Your task to perform on an android device: Open Google Chrome and open the bookmarks view Image 0: 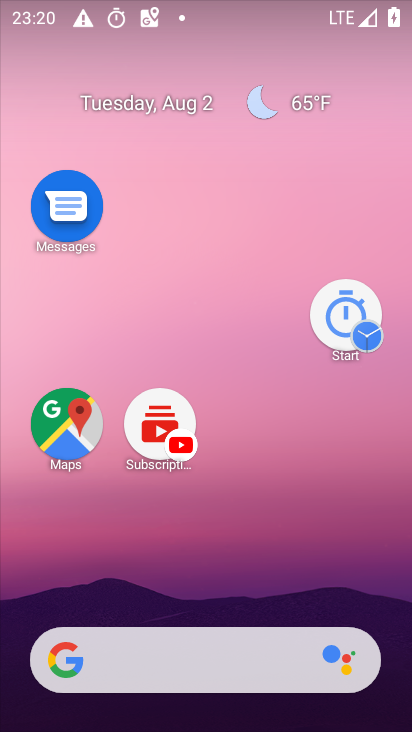
Step 0: click (211, 554)
Your task to perform on an android device: Open Google Chrome and open the bookmarks view Image 1: 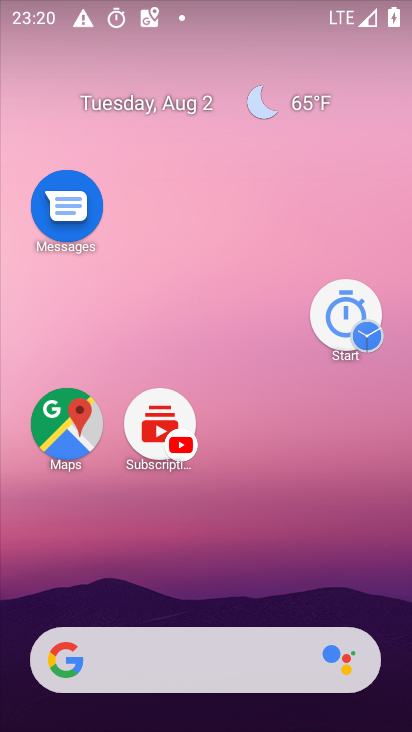
Step 1: drag from (248, 601) to (174, 216)
Your task to perform on an android device: Open Google Chrome and open the bookmarks view Image 2: 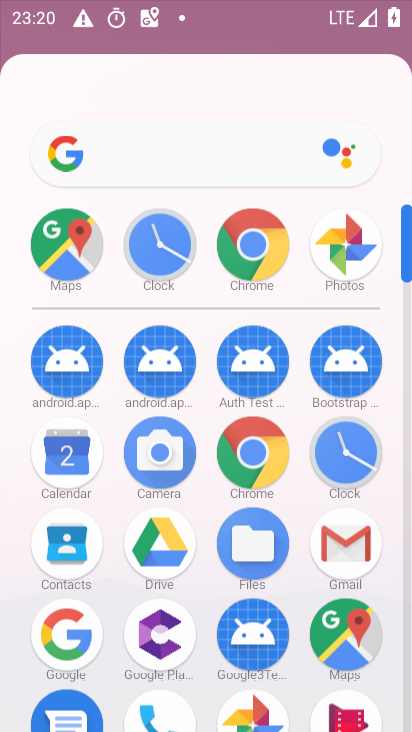
Step 2: drag from (247, 550) to (180, 213)
Your task to perform on an android device: Open Google Chrome and open the bookmarks view Image 3: 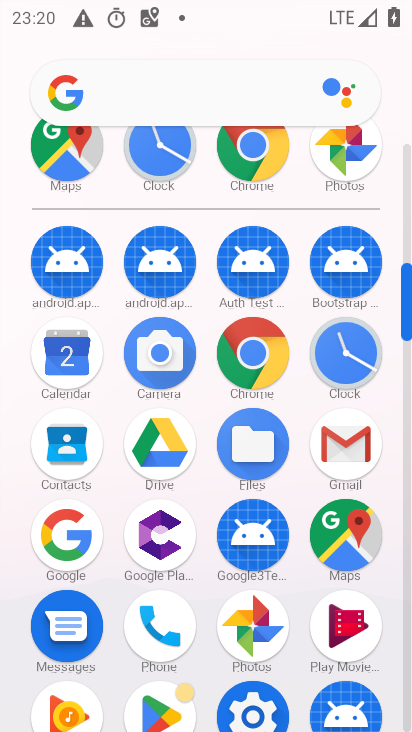
Step 3: click (252, 355)
Your task to perform on an android device: Open Google Chrome and open the bookmarks view Image 4: 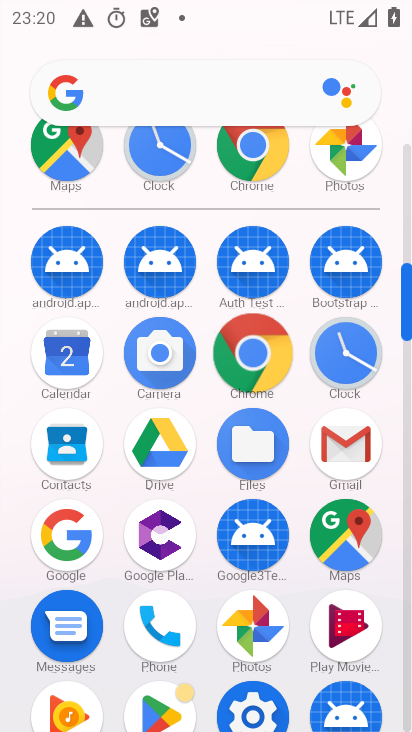
Step 4: click (253, 358)
Your task to perform on an android device: Open Google Chrome and open the bookmarks view Image 5: 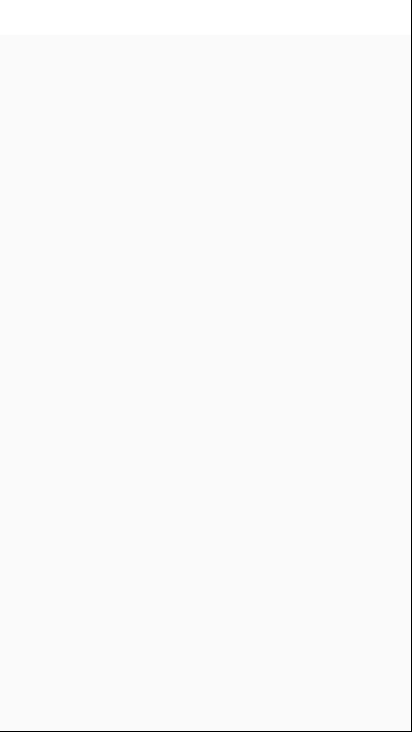
Step 5: click (251, 350)
Your task to perform on an android device: Open Google Chrome and open the bookmarks view Image 6: 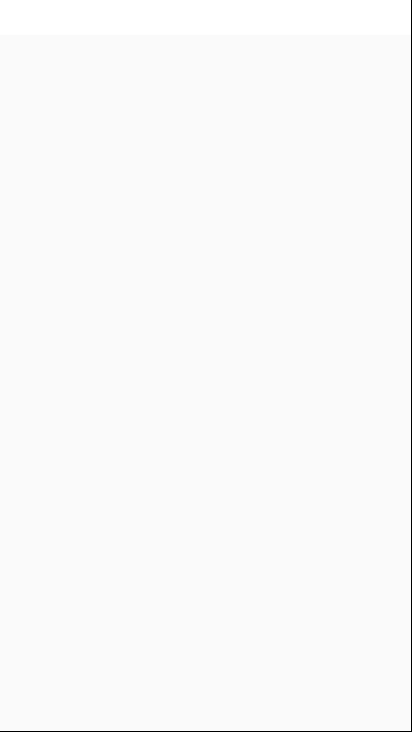
Step 6: click (258, 333)
Your task to perform on an android device: Open Google Chrome and open the bookmarks view Image 7: 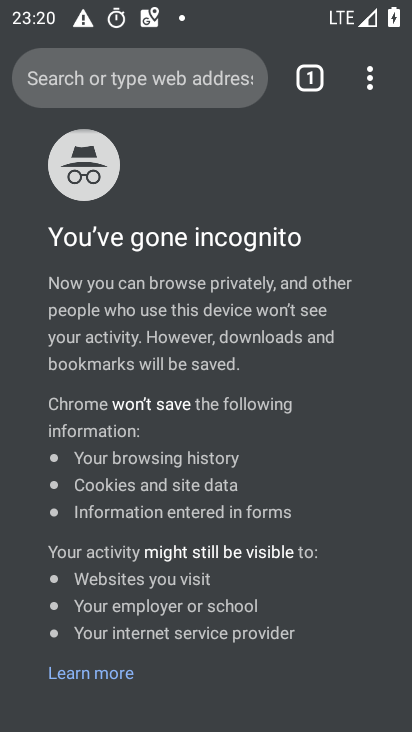
Step 7: drag from (364, 80) to (65, 156)
Your task to perform on an android device: Open Google Chrome and open the bookmarks view Image 8: 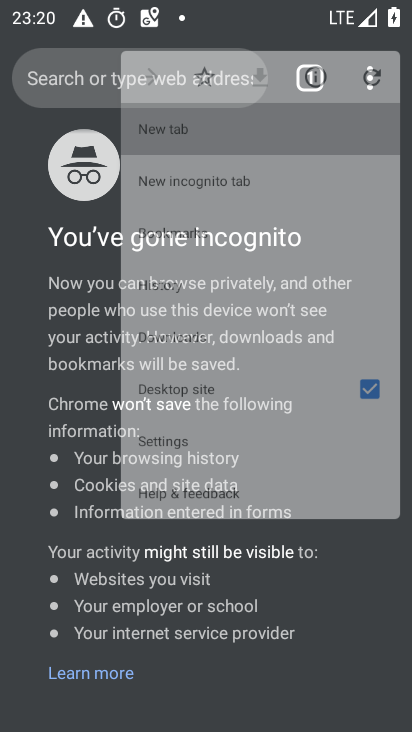
Step 8: click (68, 157)
Your task to perform on an android device: Open Google Chrome and open the bookmarks view Image 9: 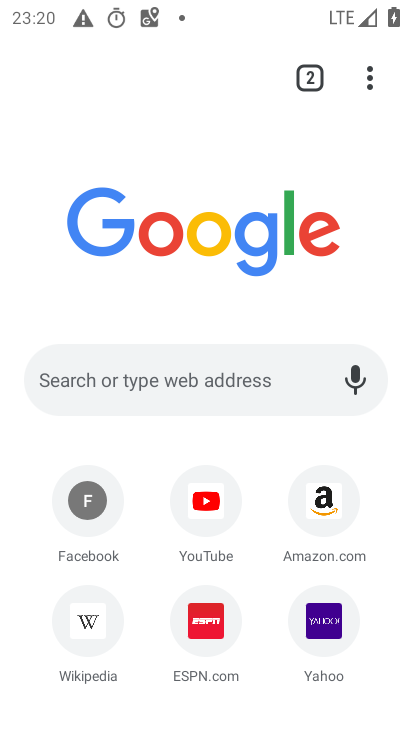
Step 9: drag from (360, 79) to (76, 285)
Your task to perform on an android device: Open Google Chrome and open the bookmarks view Image 10: 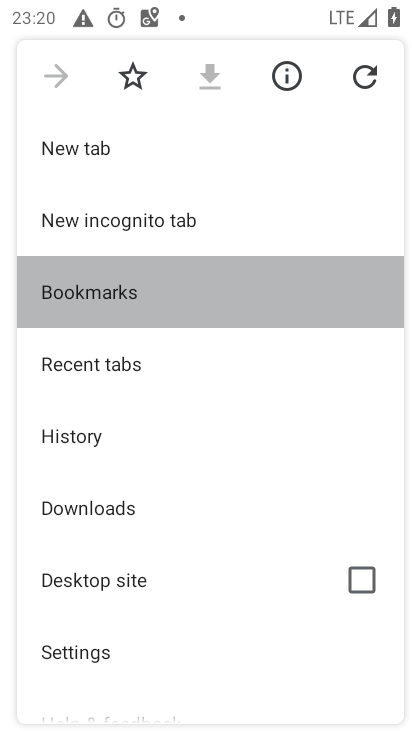
Step 10: click (76, 285)
Your task to perform on an android device: Open Google Chrome and open the bookmarks view Image 11: 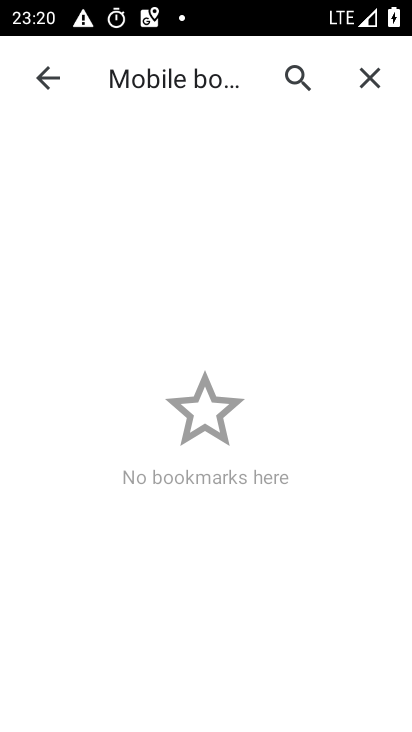
Step 11: task complete